Your task to perform on an android device: turn notification dots on Image 0: 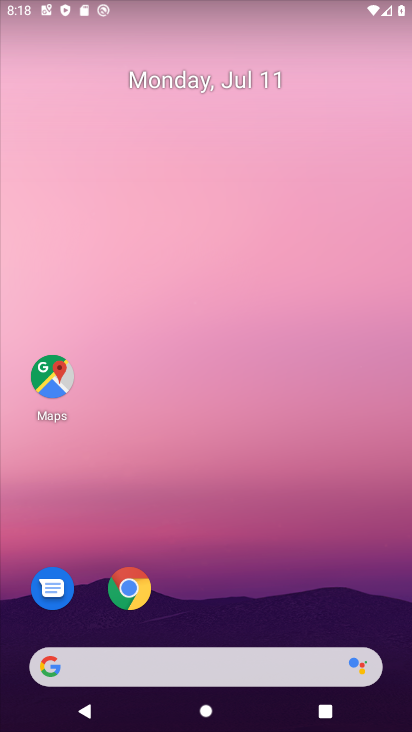
Step 0: drag from (239, 548) to (239, 163)
Your task to perform on an android device: turn notification dots on Image 1: 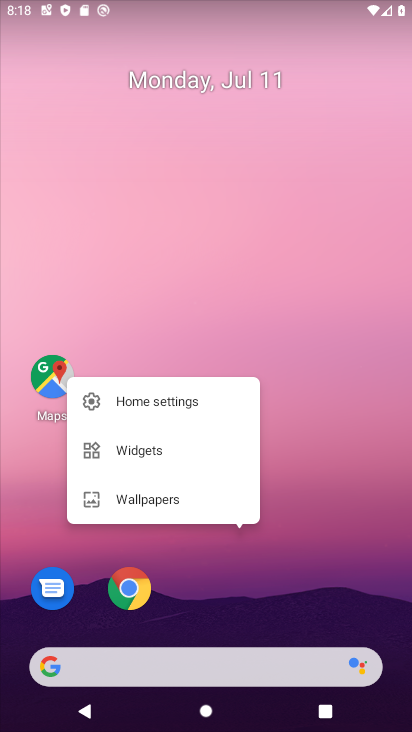
Step 1: click (291, 465)
Your task to perform on an android device: turn notification dots on Image 2: 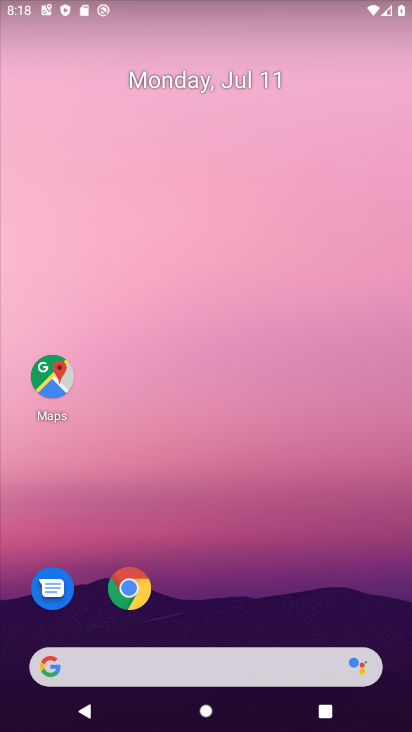
Step 2: drag from (291, 465) to (281, 30)
Your task to perform on an android device: turn notification dots on Image 3: 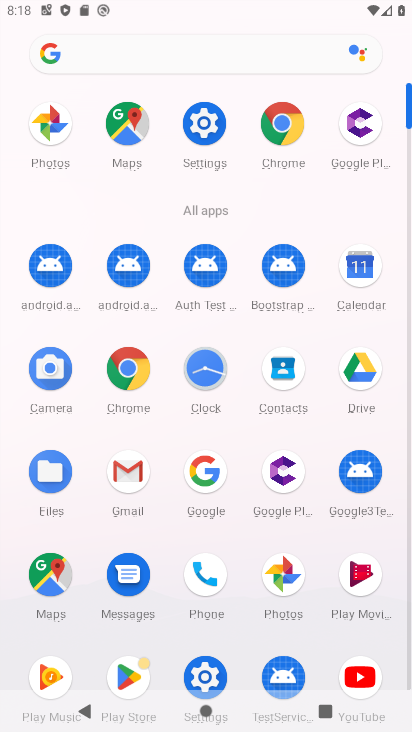
Step 3: click (205, 121)
Your task to perform on an android device: turn notification dots on Image 4: 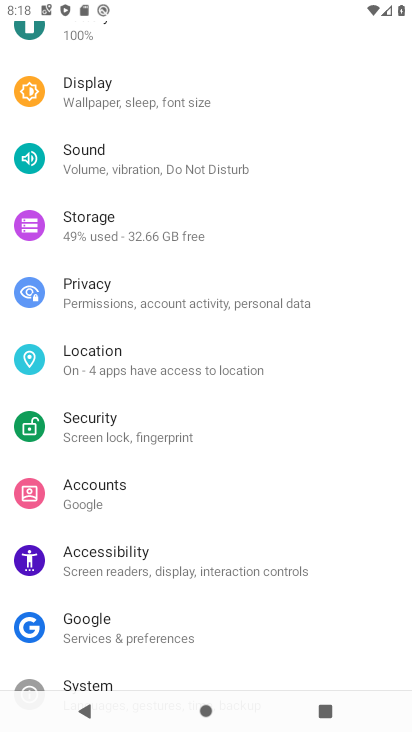
Step 4: drag from (196, 158) to (236, 358)
Your task to perform on an android device: turn notification dots on Image 5: 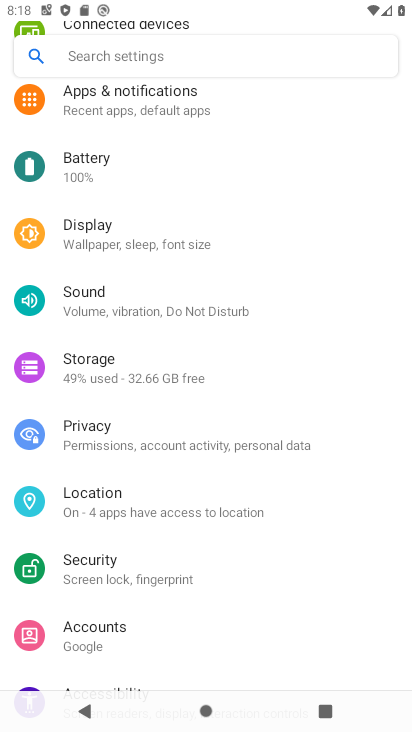
Step 5: click (183, 107)
Your task to perform on an android device: turn notification dots on Image 6: 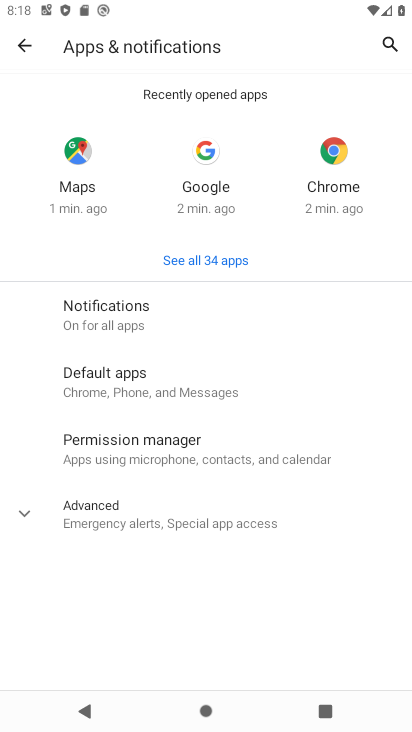
Step 6: click (85, 308)
Your task to perform on an android device: turn notification dots on Image 7: 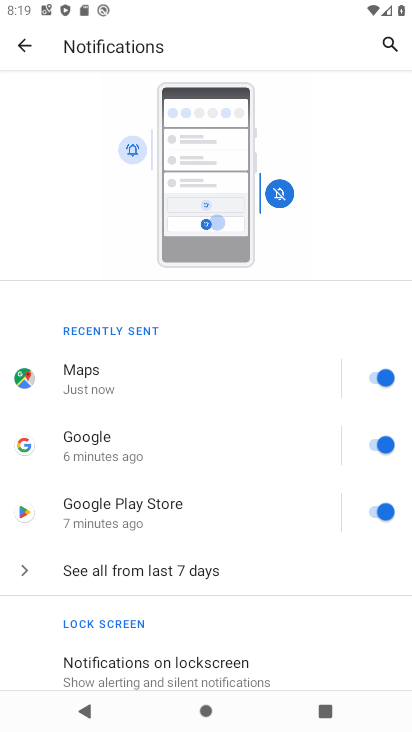
Step 7: drag from (193, 602) to (195, 180)
Your task to perform on an android device: turn notification dots on Image 8: 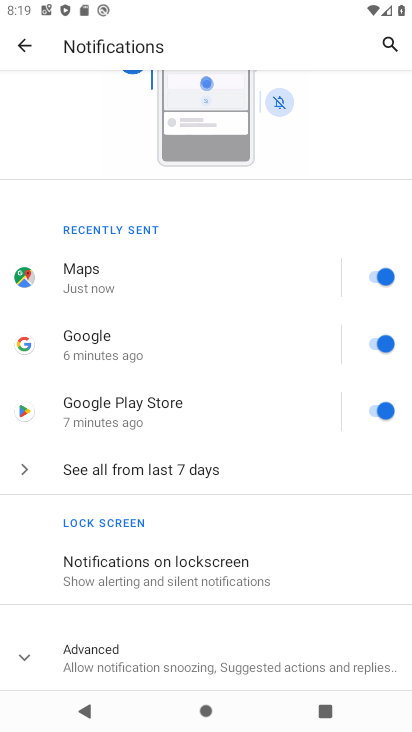
Step 8: click (154, 645)
Your task to perform on an android device: turn notification dots on Image 9: 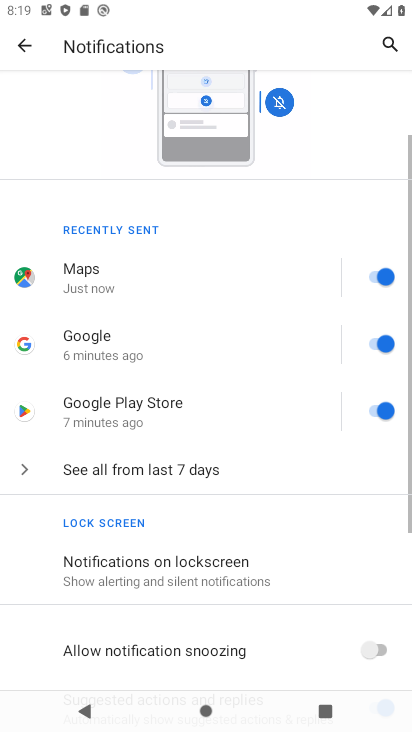
Step 9: task complete